Your task to perform on an android device: change the clock display to show seconds Image 0: 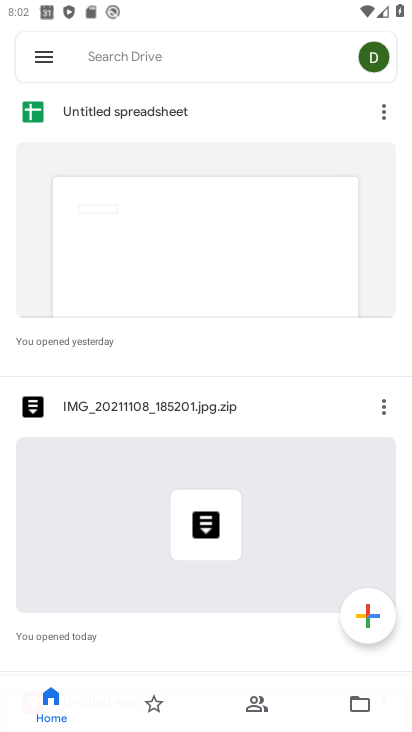
Step 0: press home button
Your task to perform on an android device: change the clock display to show seconds Image 1: 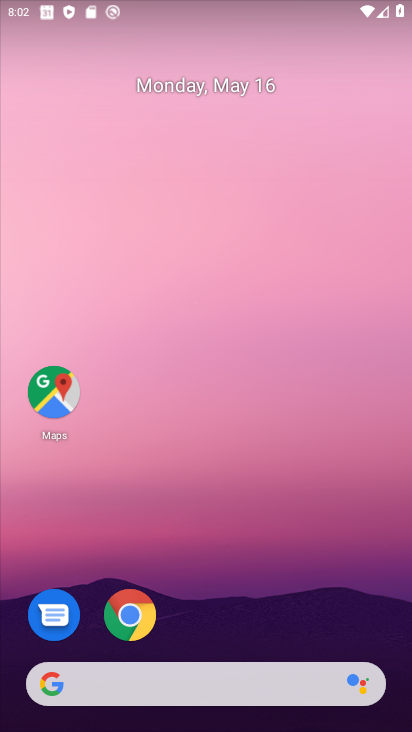
Step 1: drag from (187, 674) to (243, 117)
Your task to perform on an android device: change the clock display to show seconds Image 2: 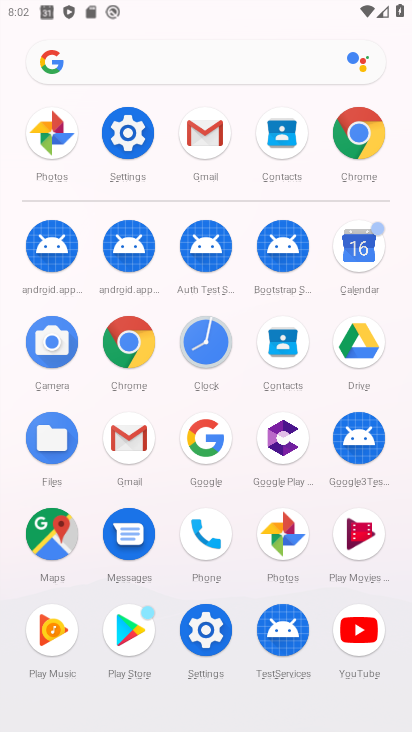
Step 2: click (205, 371)
Your task to perform on an android device: change the clock display to show seconds Image 3: 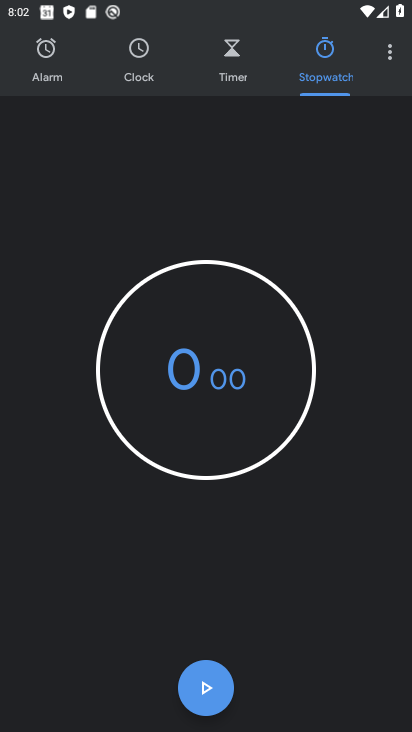
Step 3: click (390, 48)
Your task to perform on an android device: change the clock display to show seconds Image 4: 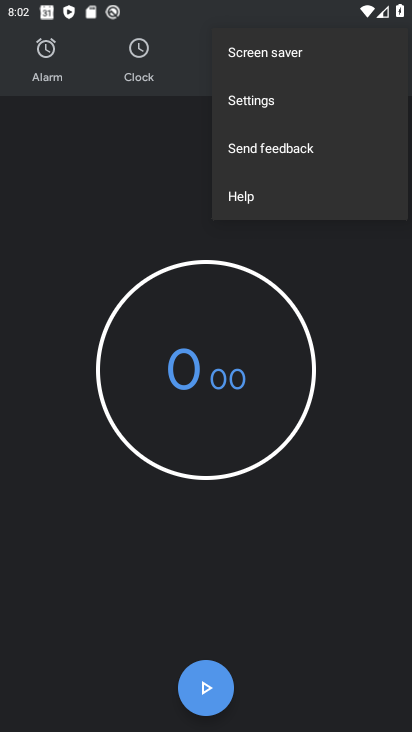
Step 4: click (277, 107)
Your task to perform on an android device: change the clock display to show seconds Image 5: 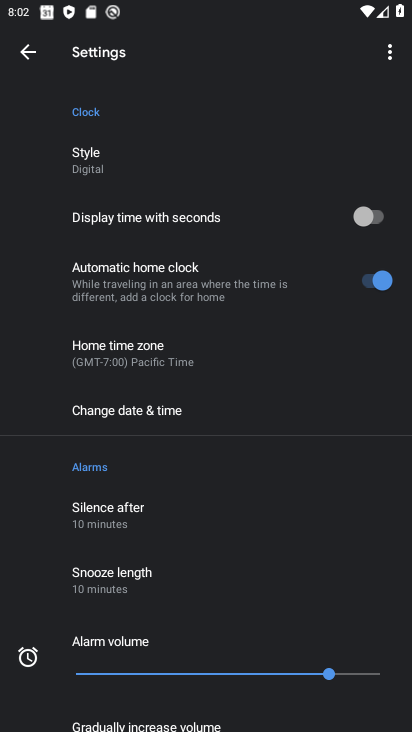
Step 5: click (190, 225)
Your task to perform on an android device: change the clock display to show seconds Image 6: 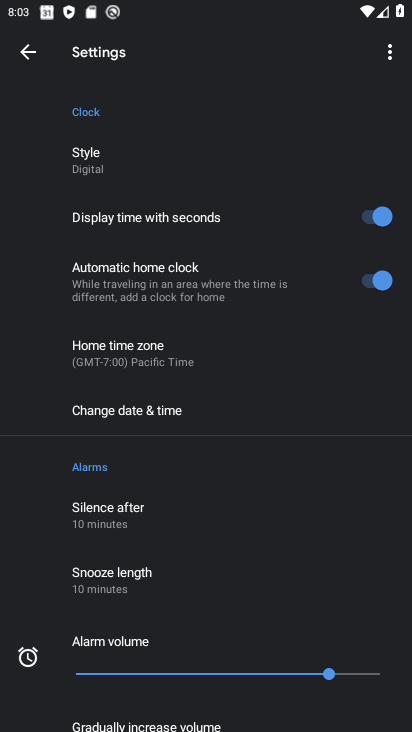
Step 6: task complete